Your task to perform on an android device: Go to CNN.com Image 0: 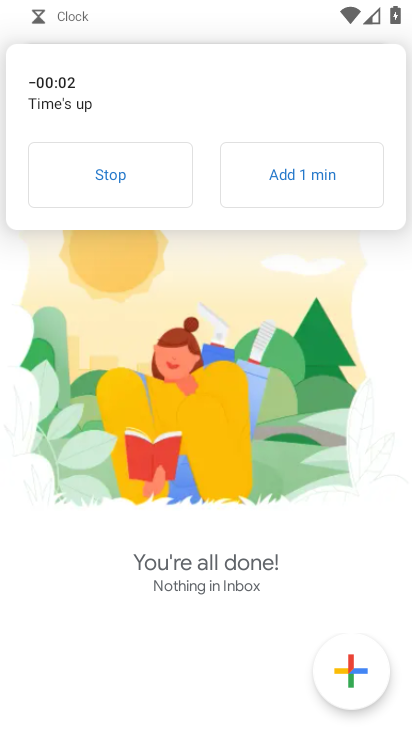
Step 0: click (147, 200)
Your task to perform on an android device: Go to CNN.com Image 1: 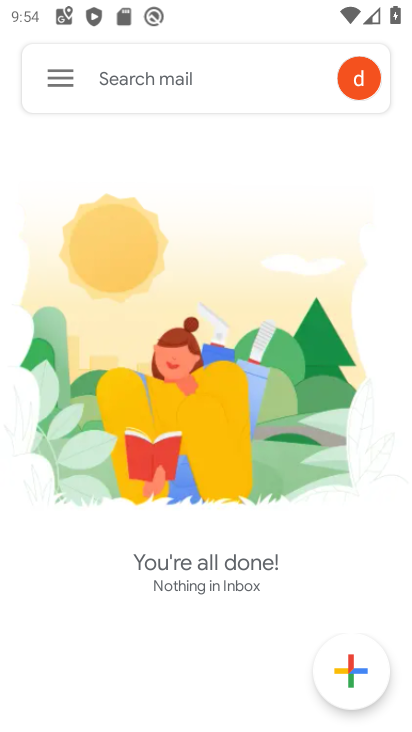
Step 1: press home button
Your task to perform on an android device: Go to CNN.com Image 2: 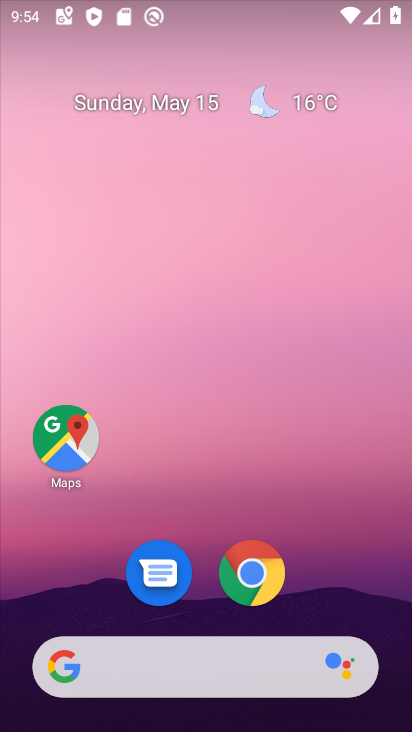
Step 2: click (225, 547)
Your task to perform on an android device: Go to CNN.com Image 3: 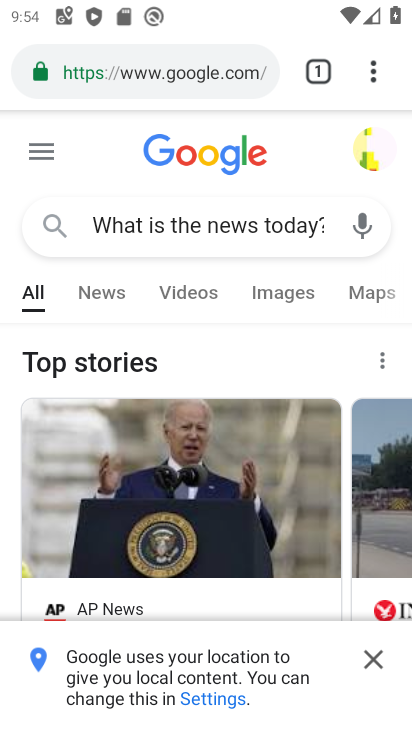
Step 3: click (162, 65)
Your task to perform on an android device: Go to CNN.com Image 4: 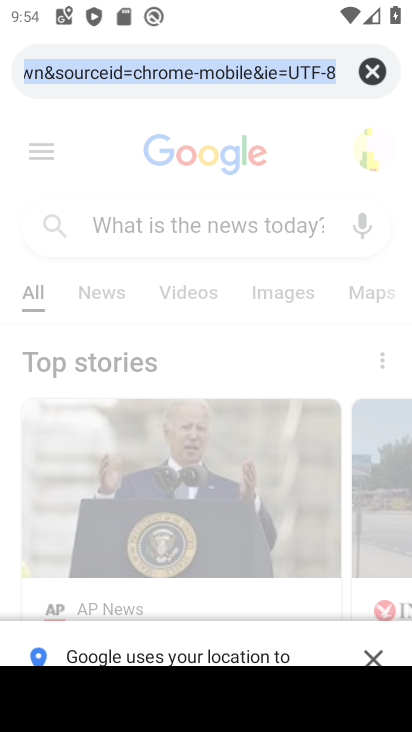
Step 4: click (372, 58)
Your task to perform on an android device: Go to CNN.com Image 5: 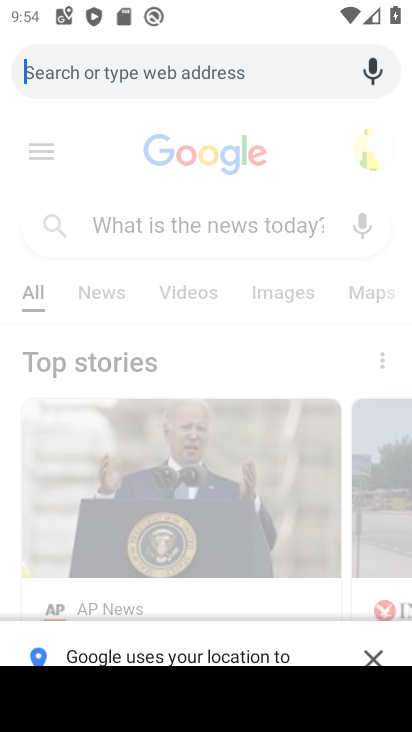
Step 5: type " CNN.com"
Your task to perform on an android device: Go to CNN.com Image 6: 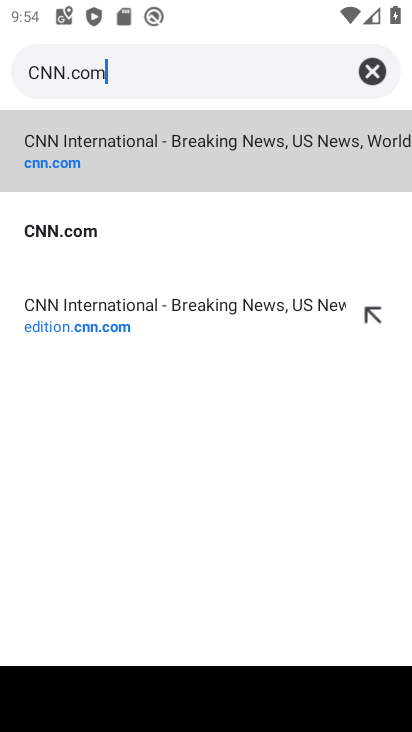
Step 6: click (54, 135)
Your task to perform on an android device: Go to CNN.com Image 7: 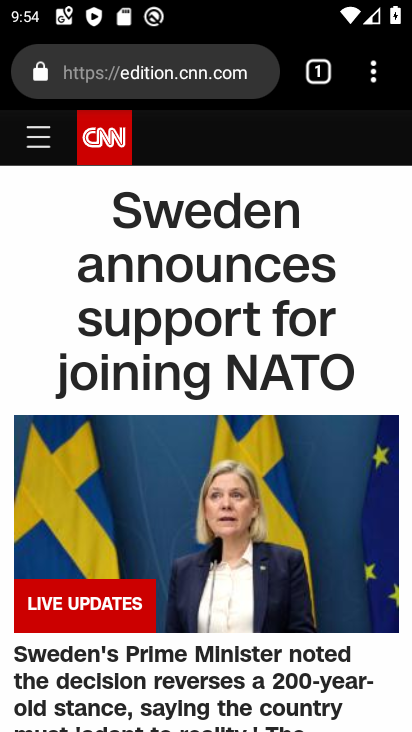
Step 7: task complete